Your task to perform on an android device: open app "LiveIn - Share Your Moment" (install if not already installed) Image 0: 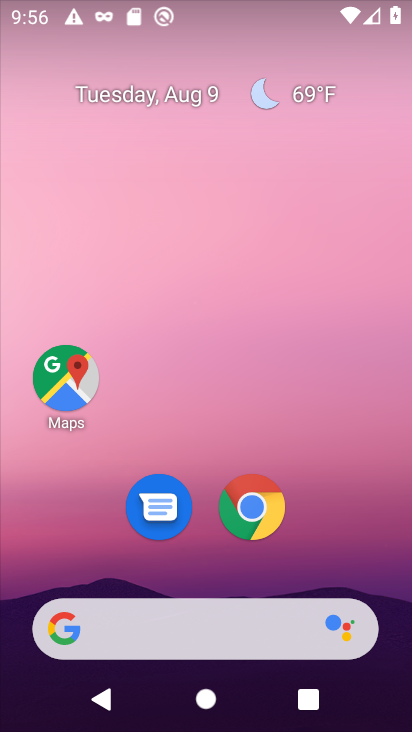
Step 0: drag from (188, 628) to (278, 224)
Your task to perform on an android device: open app "LiveIn - Share Your Moment" (install if not already installed) Image 1: 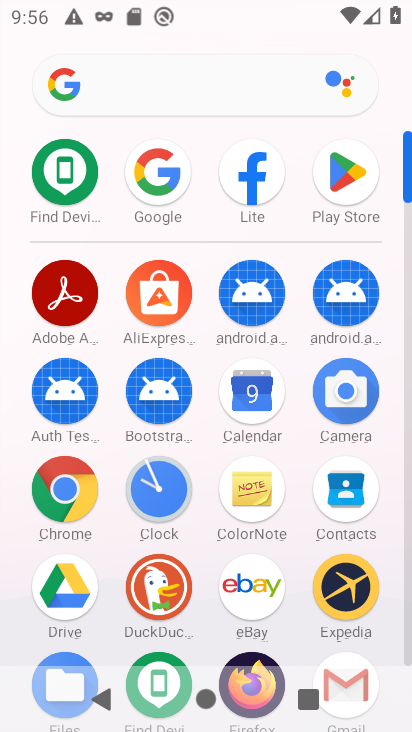
Step 1: click (354, 170)
Your task to perform on an android device: open app "LiveIn - Share Your Moment" (install if not already installed) Image 2: 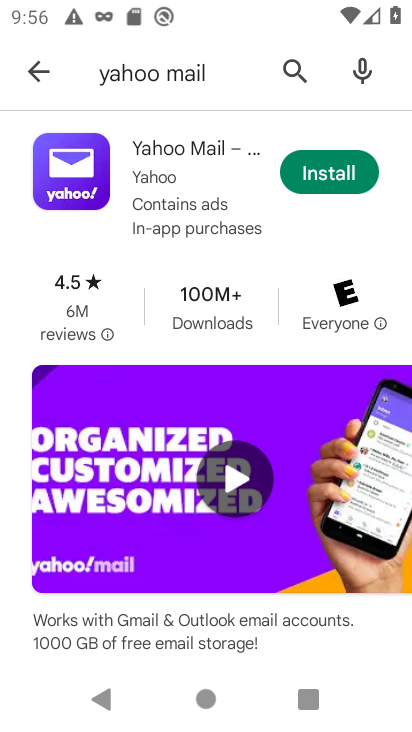
Step 2: click (295, 74)
Your task to perform on an android device: open app "LiveIn - Share Your Moment" (install if not already installed) Image 3: 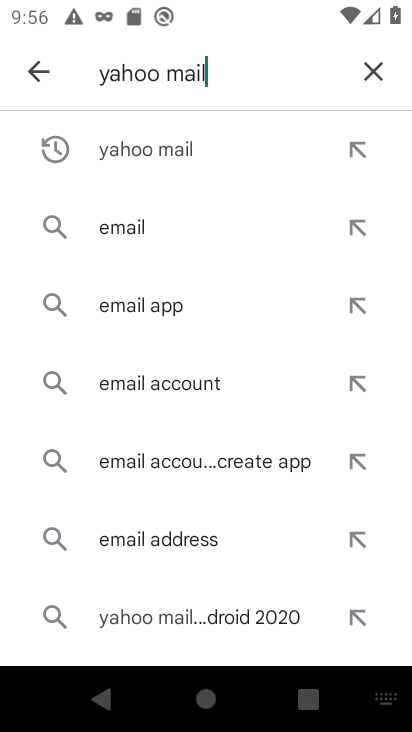
Step 3: click (381, 71)
Your task to perform on an android device: open app "LiveIn - Share Your Moment" (install if not already installed) Image 4: 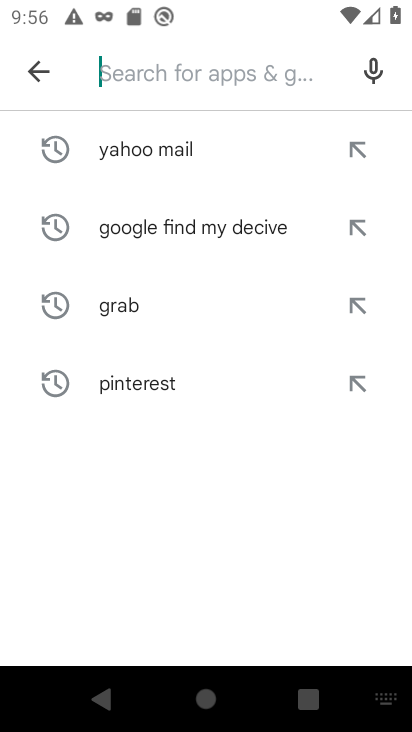
Step 4: click (137, 79)
Your task to perform on an android device: open app "LiveIn - Share Your Moment" (install if not already installed) Image 5: 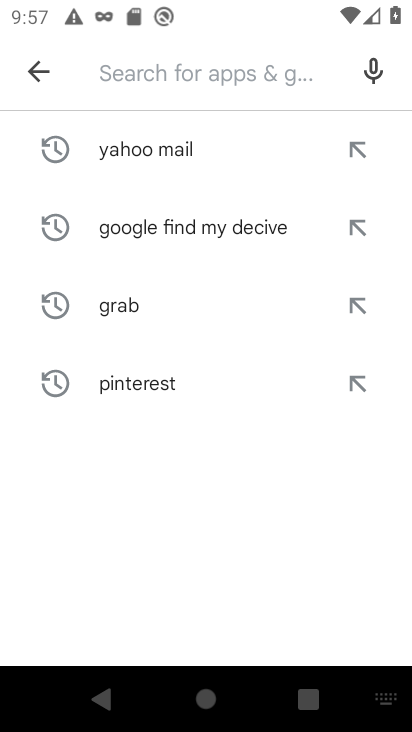
Step 5: type "LiveIn - Share Your Moment"
Your task to perform on an android device: open app "LiveIn - Share Your Moment" (install if not already installed) Image 6: 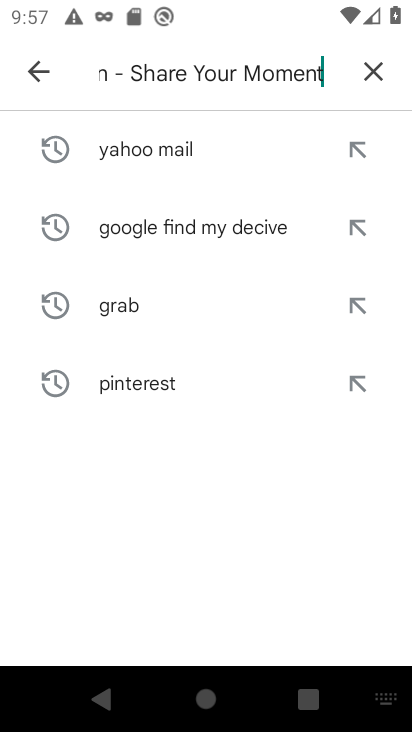
Step 6: type ""
Your task to perform on an android device: open app "LiveIn - Share Your Moment" (install if not already installed) Image 7: 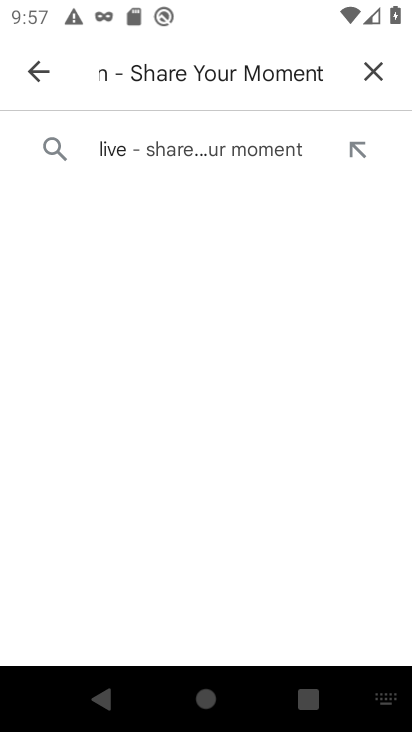
Step 7: click (236, 148)
Your task to perform on an android device: open app "LiveIn - Share Your Moment" (install if not already installed) Image 8: 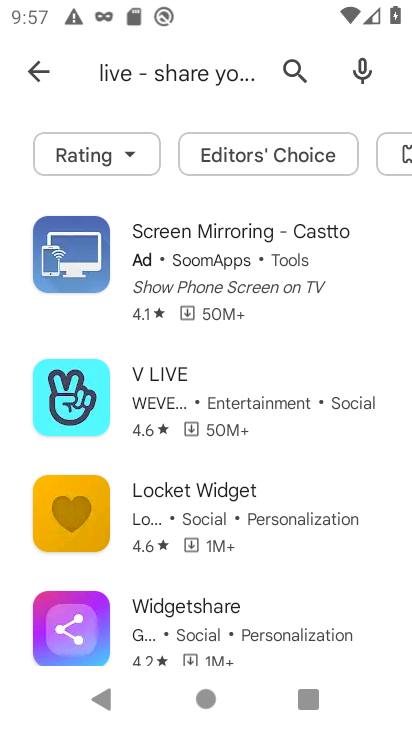
Step 8: task complete